Your task to perform on an android device: check storage Image 0: 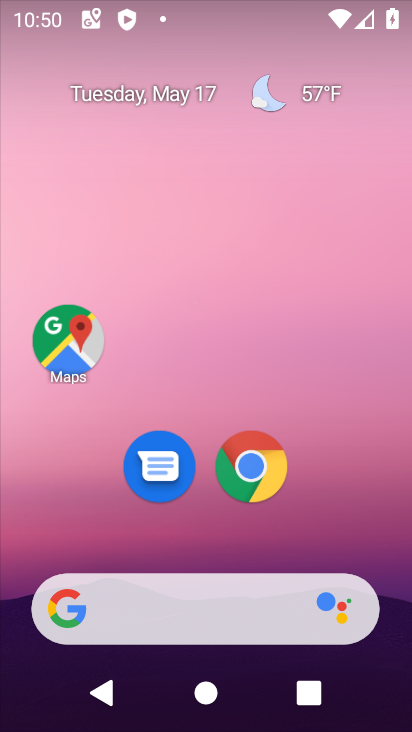
Step 0: drag from (189, 551) to (292, 0)
Your task to perform on an android device: check storage Image 1: 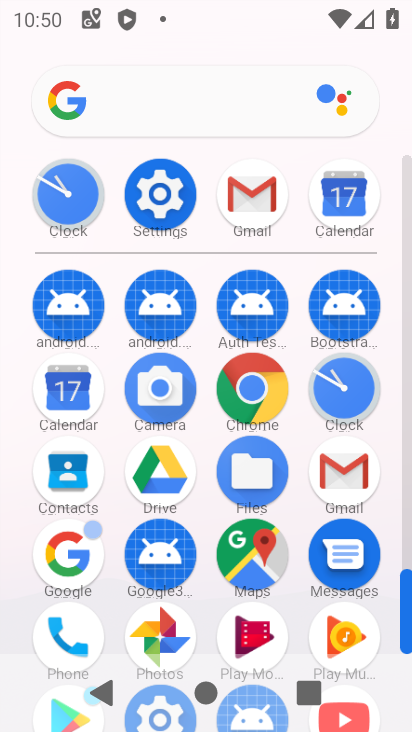
Step 1: drag from (116, 644) to (118, 328)
Your task to perform on an android device: check storage Image 2: 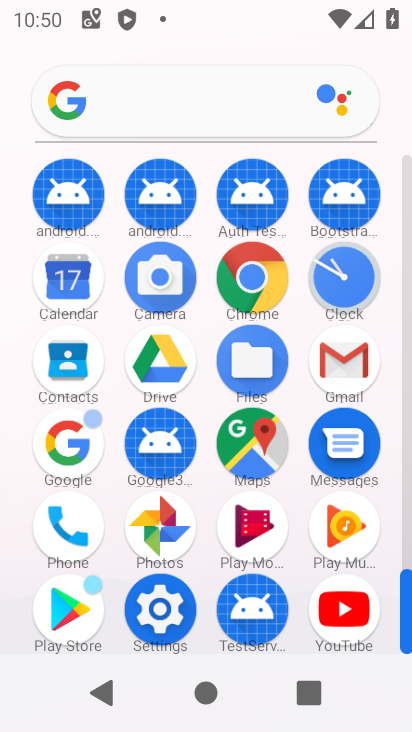
Step 2: click (153, 631)
Your task to perform on an android device: check storage Image 3: 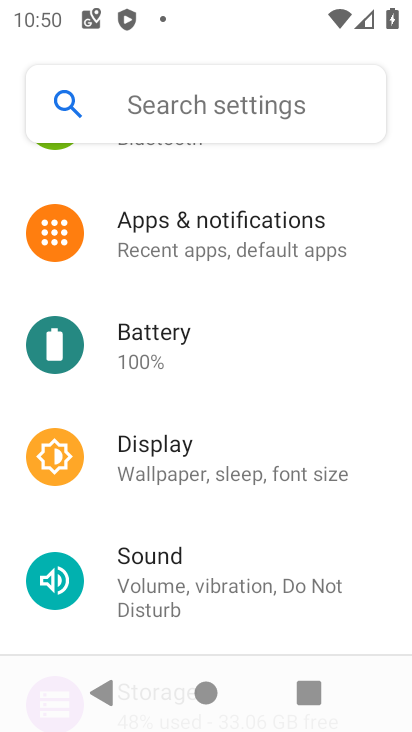
Step 3: drag from (167, 607) to (167, 206)
Your task to perform on an android device: check storage Image 4: 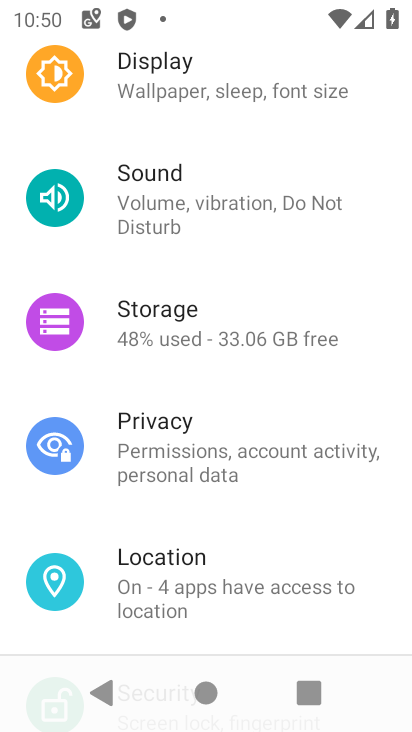
Step 4: click (168, 323)
Your task to perform on an android device: check storage Image 5: 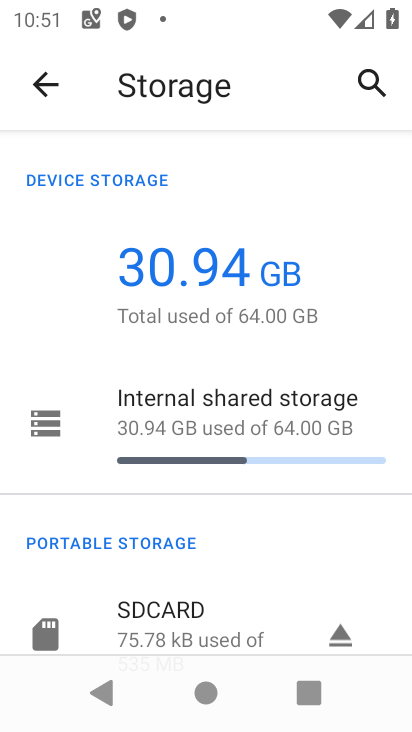
Step 5: task complete